Your task to perform on an android device: change alarm snooze length Image 0: 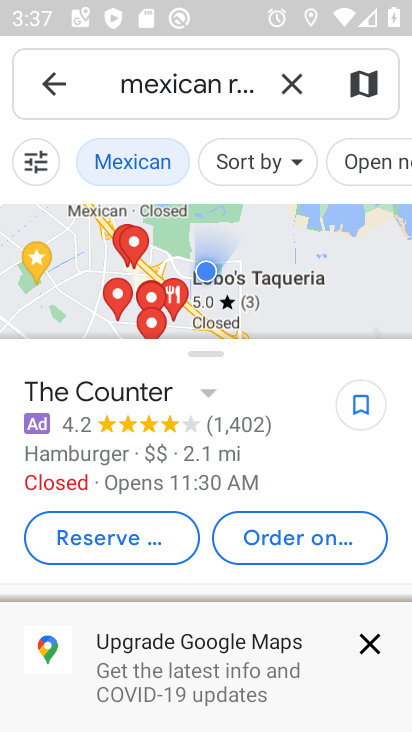
Step 0: press home button
Your task to perform on an android device: change alarm snooze length Image 1: 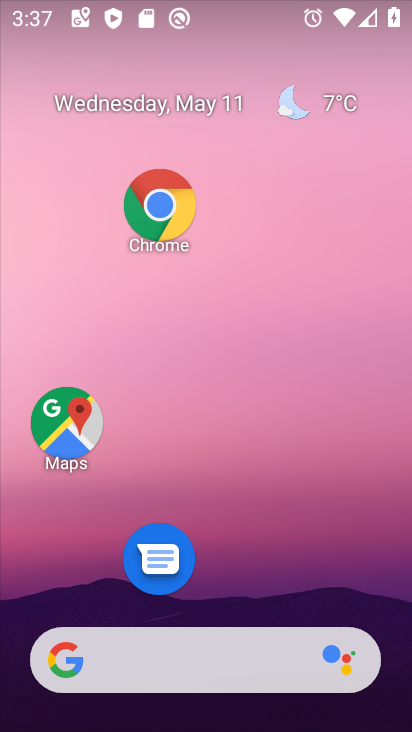
Step 1: drag from (260, 626) to (288, 216)
Your task to perform on an android device: change alarm snooze length Image 2: 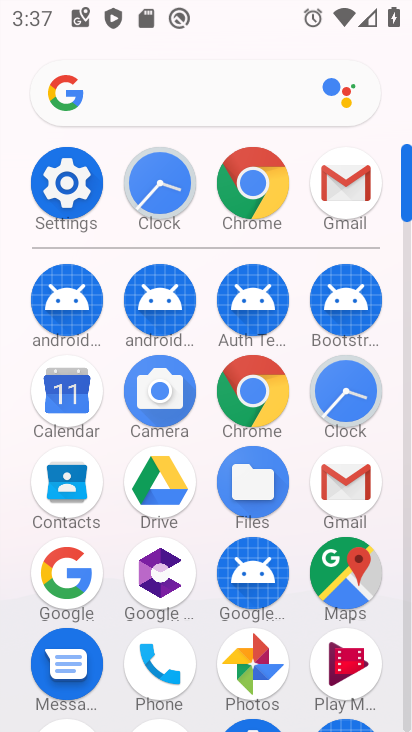
Step 2: click (339, 384)
Your task to perform on an android device: change alarm snooze length Image 3: 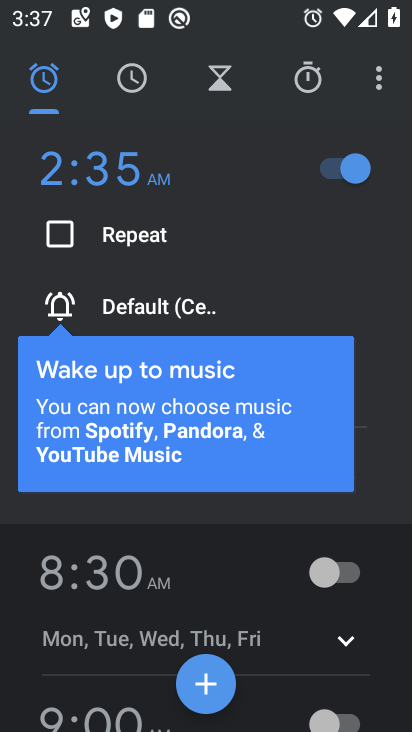
Step 3: click (381, 77)
Your task to perform on an android device: change alarm snooze length Image 4: 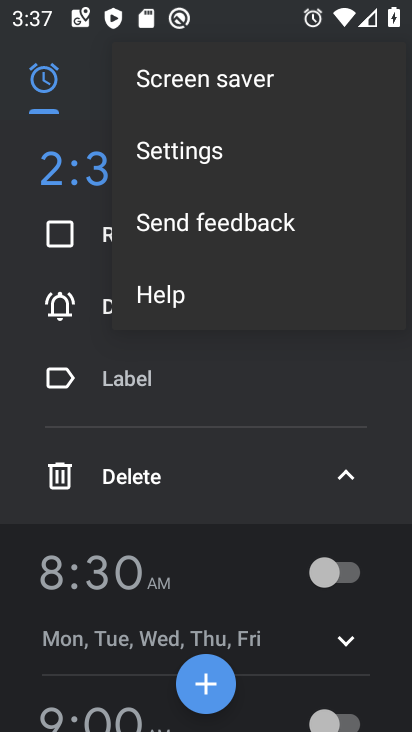
Step 4: click (200, 146)
Your task to perform on an android device: change alarm snooze length Image 5: 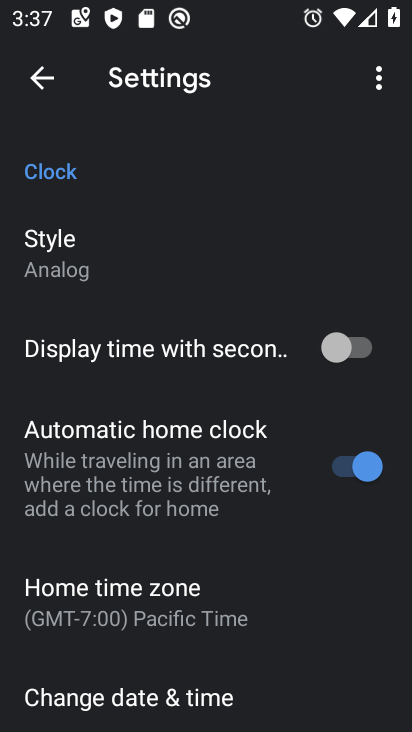
Step 5: drag from (169, 710) to (171, 308)
Your task to perform on an android device: change alarm snooze length Image 6: 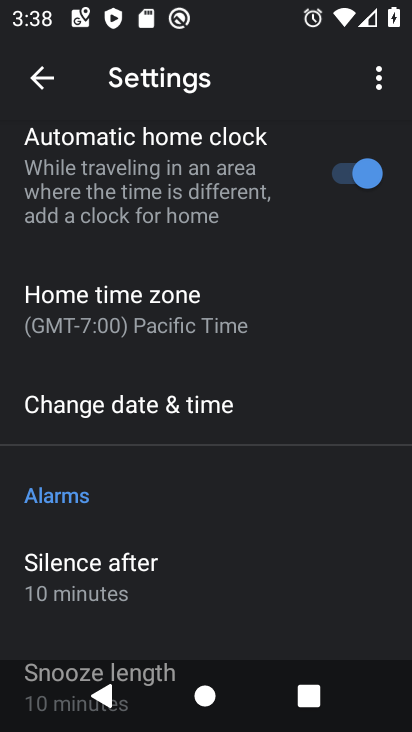
Step 6: drag from (127, 623) to (171, 263)
Your task to perform on an android device: change alarm snooze length Image 7: 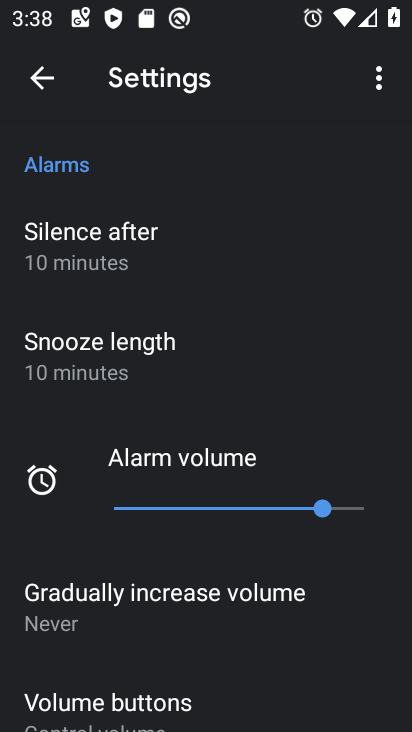
Step 7: click (139, 351)
Your task to perform on an android device: change alarm snooze length Image 8: 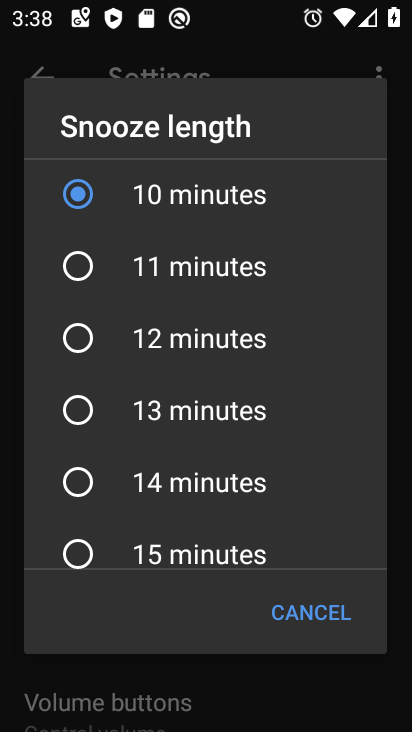
Step 8: click (85, 340)
Your task to perform on an android device: change alarm snooze length Image 9: 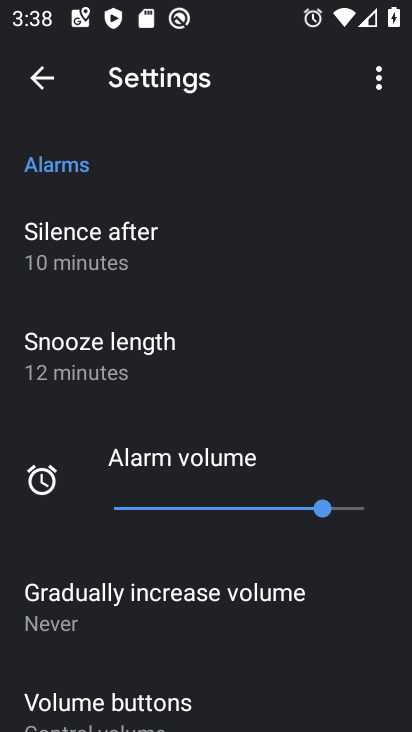
Step 9: task complete